Your task to perform on an android device: Do I have any events today? Image 0: 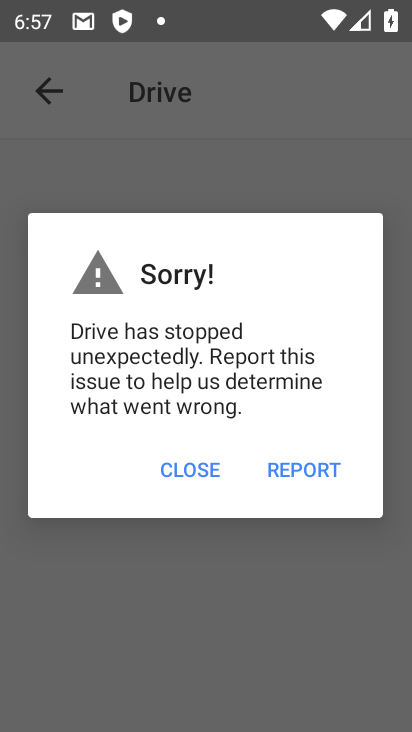
Step 0: press home button
Your task to perform on an android device: Do I have any events today? Image 1: 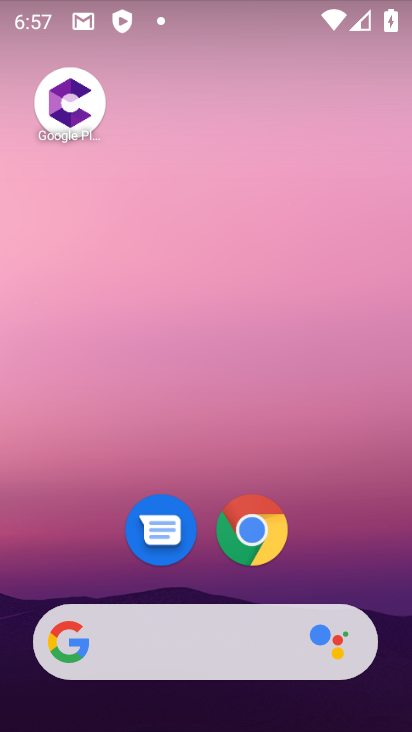
Step 1: drag from (278, 602) to (332, 56)
Your task to perform on an android device: Do I have any events today? Image 2: 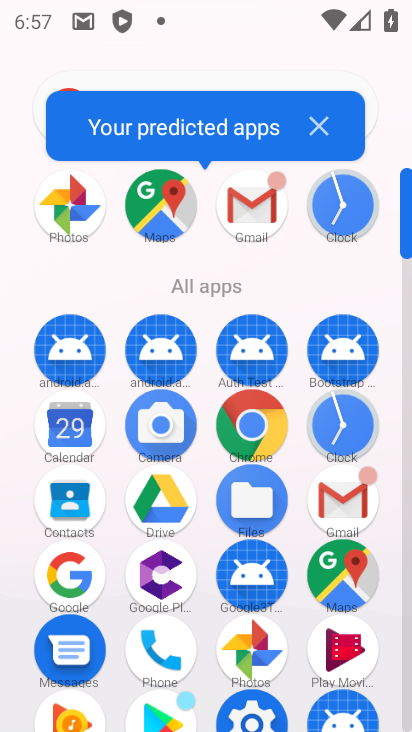
Step 2: click (82, 451)
Your task to perform on an android device: Do I have any events today? Image 3: 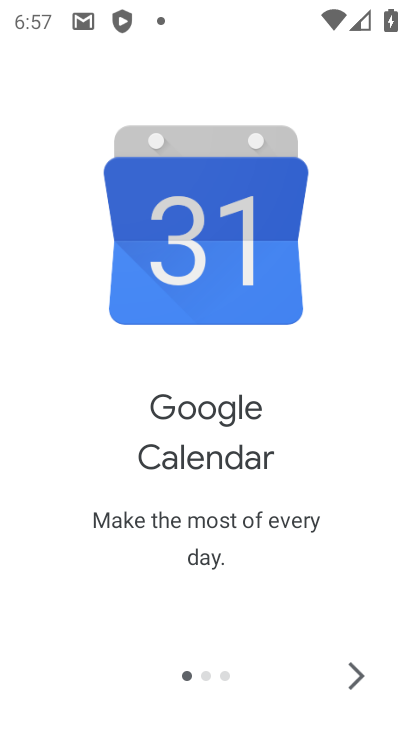
Step 3: click (342, 670)
Your task to perform on an android device: Do I have any events today? Image 4: 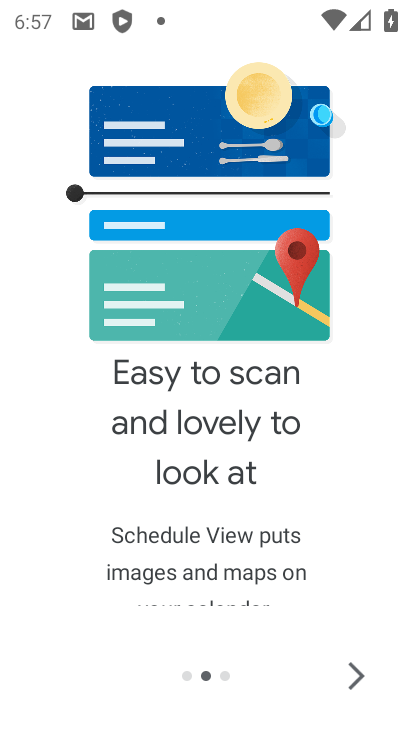
Step 4: click (339, 665)
Your task to perform on an android device: Do I have any events today? Image 5: 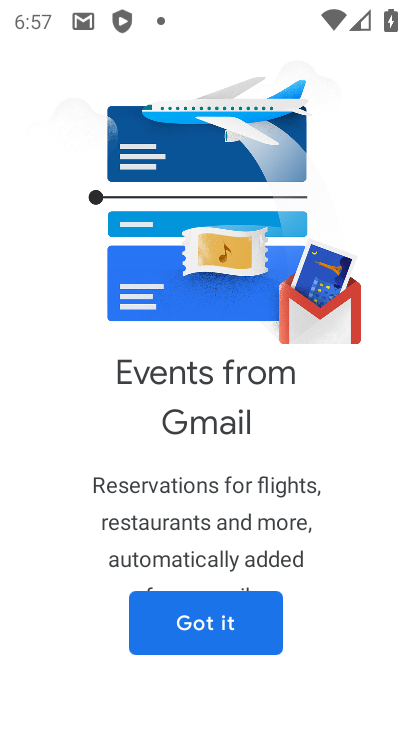
Step 5: click (231, 618)
Your task to perform on an android device: Do I have any events today? Image 6: 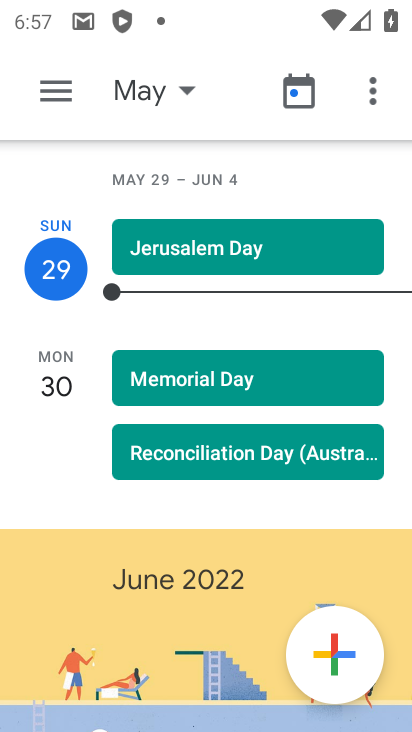
Step 6: task complete